Your task to perform on an android device: turn on priority inbox in the gmail app Image 0: 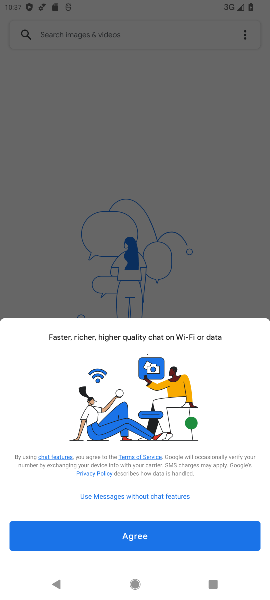
Step 0: press home button
Your task to perform on an android device: turn on priority inbox in the gmail app Image 1: 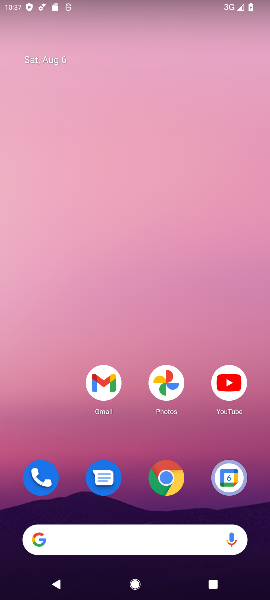
Step 1: drag from (149, 510) to (141, 87)
Your task to perform on an android device: turn on priority inbox in the gmail app Image 2: 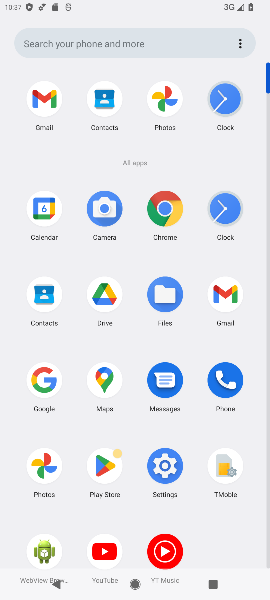
Step 2: click (220, 297)
Your task to perform on an android device: turn on priority inbox in the gmail app Image 3: 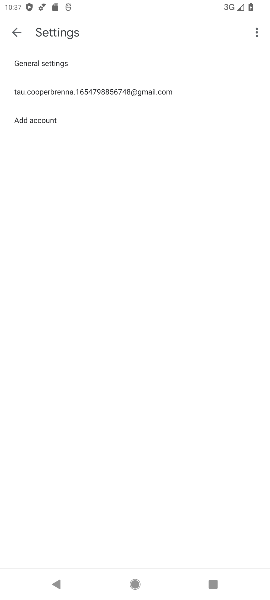
Step 3: click (55, 94)
Your task to perform on an android device: turn on priority inbox in the gmail app Image 4: 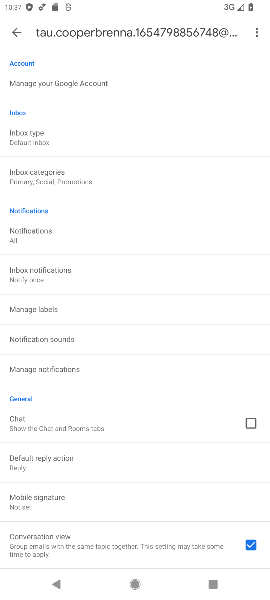
Step 4: click (38, 139)
Your task to perform on an android device: turn on priority inbox in the gmail app Image 5: 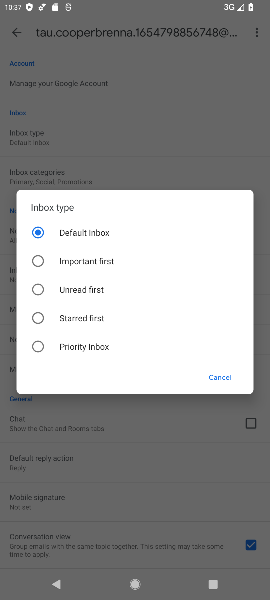
Step 5: click (41, 343)
Your task to perform on an android device: turn on priority inbox in the gmail app Image 6: 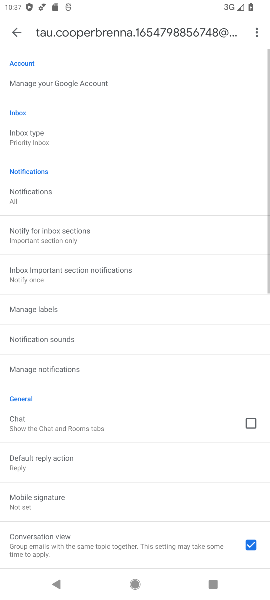
Step 6: task complete